Your task to perform on an android device: empty trash in google photos Image 0: 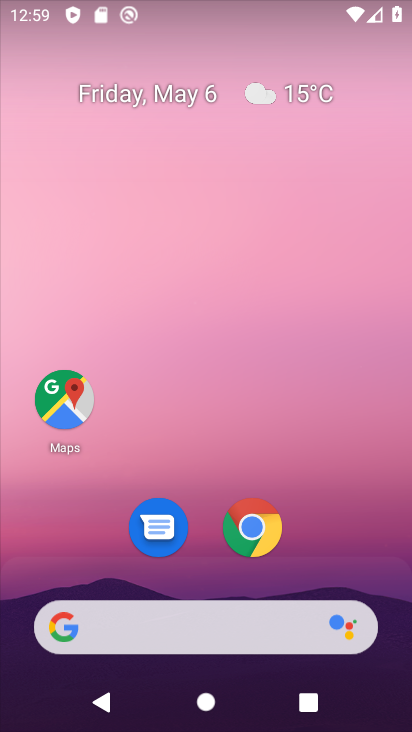
Step 0: drag from (185, 583) to (254, 50)
Your task to perform on an android device: empty trash in google photos Image 1: 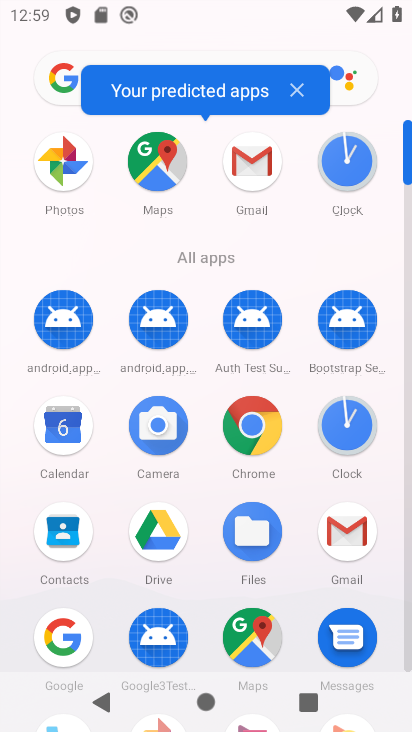
Step 1: click (81, 165)
Your task to perform on an android device: empty trash in google photos Image 2: 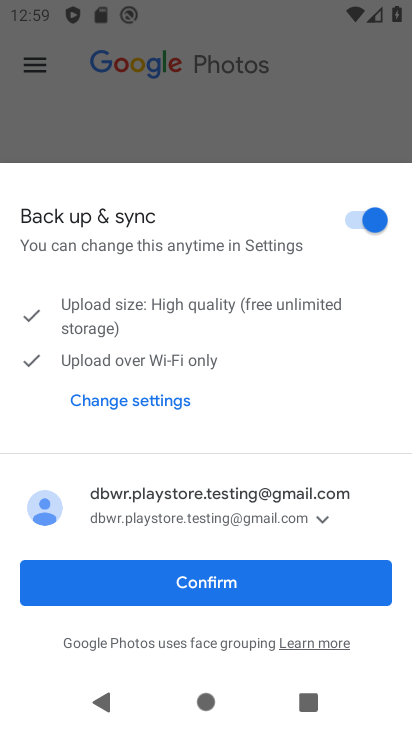
Step 2: click (44, 59)
Your task to perform on an android device: empty trash in google photos Image 3: 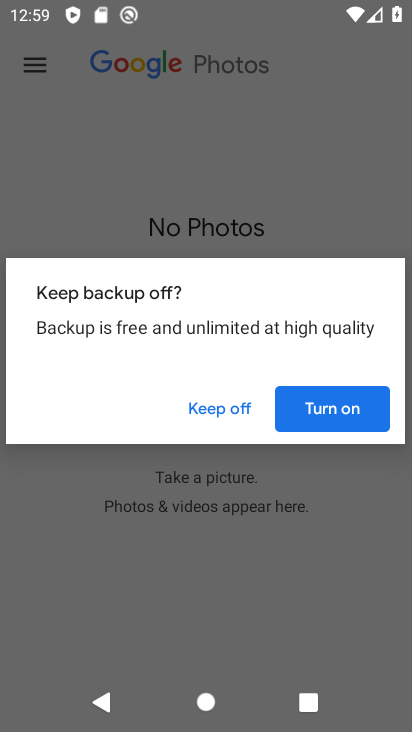
Step 3: click (242, 409)
Your task to perform on an android device: empty trash in google photos Image 4: 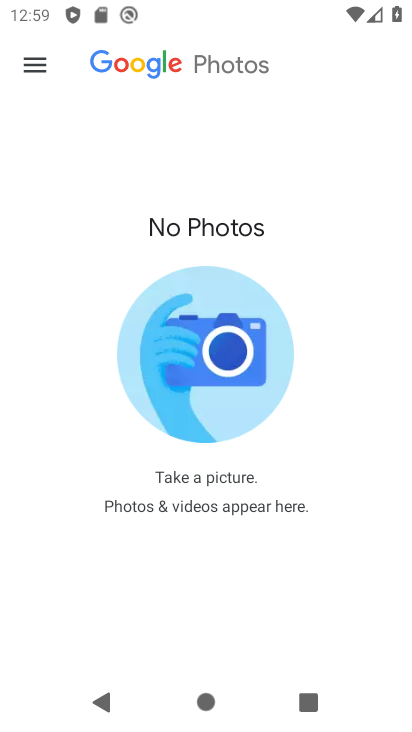
Step 4: click (37, 72)
Your task to perform on an android device: empty trash in google photos Image 5: 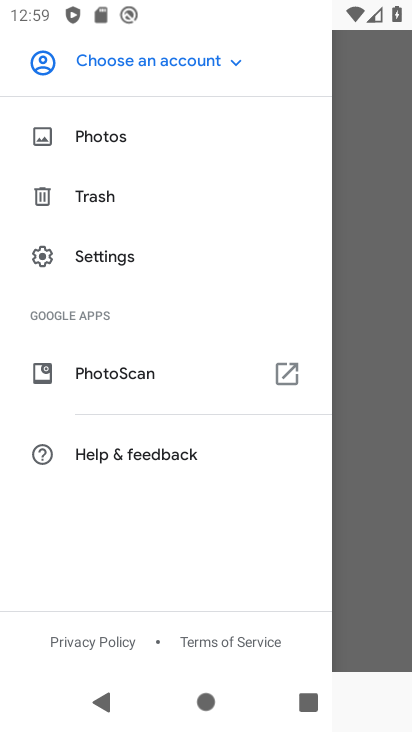
Step 5: click (126, 200)
Your task to perform on an android device: empty trash in google photos Image 6: 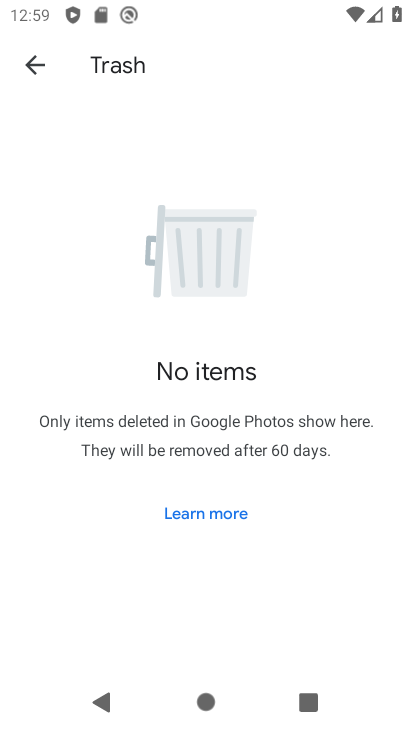
Step 6: task complete